Your task to perform on an android device: turn off javascript in the chrome app Image 0: 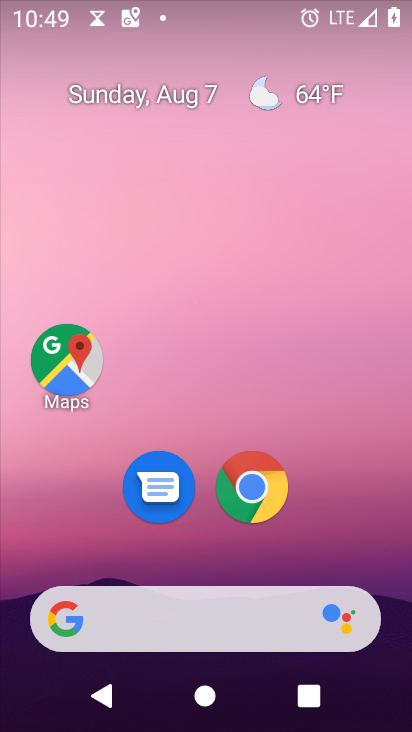
Step 0: click (255, 487)
Your task to perform on an android device: turn off javascript in the chrome app Image 1: 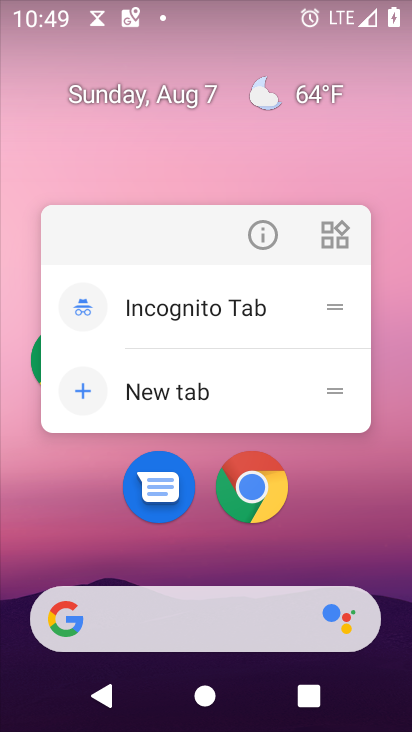
Step 1: click (246, 497)
Your task to perform on an android device: turn off javascript in the chrome app Image 2: 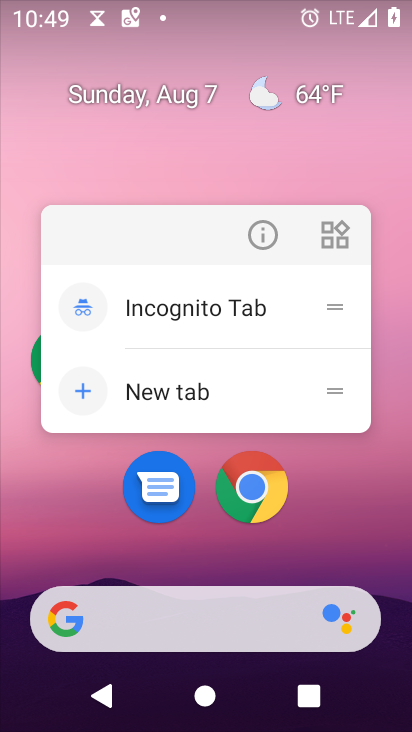
Step 2: click (259, 479)
Your task to perform on an android device: turn off javascript in the chrome app Image 3: 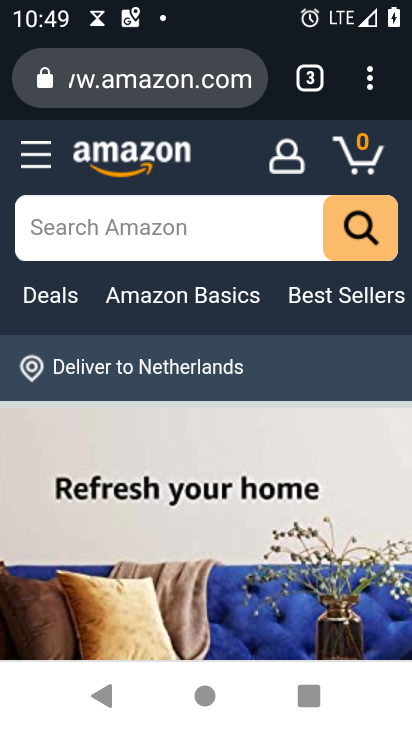
Step 3: click (372, 72)
Your task to perform on an android device: turn off javascript in the chrome app Image 4: 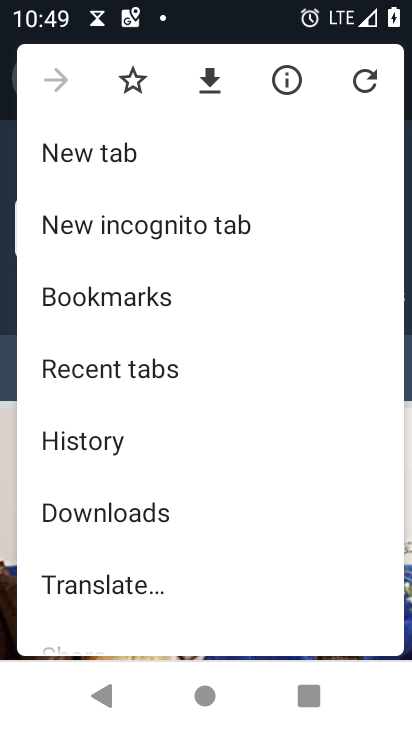
Step 4: drag from (256, 457) to (262, 148)
Your task to perform on an android device: turn off javascript in the chrome app Image 5: 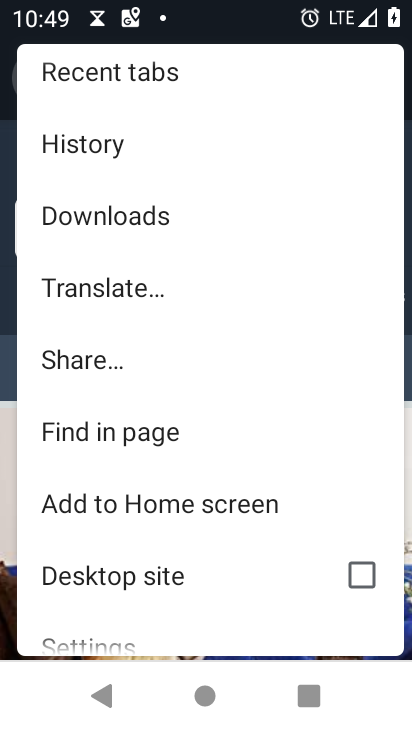
Step 5: click (88, 641)
Your task to perform on an android device: turn off javascript in the chrome app Image 6: 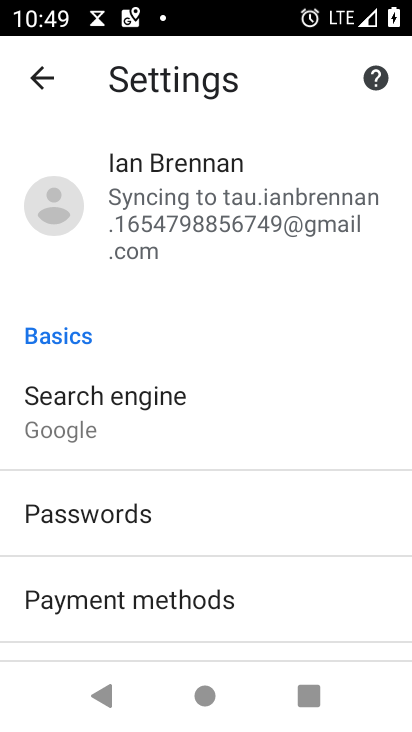
Step 6: drag from (258, 592) to (272, 221)
Your task to perform on an android device: turn off javascript in the chrome app Image 7: 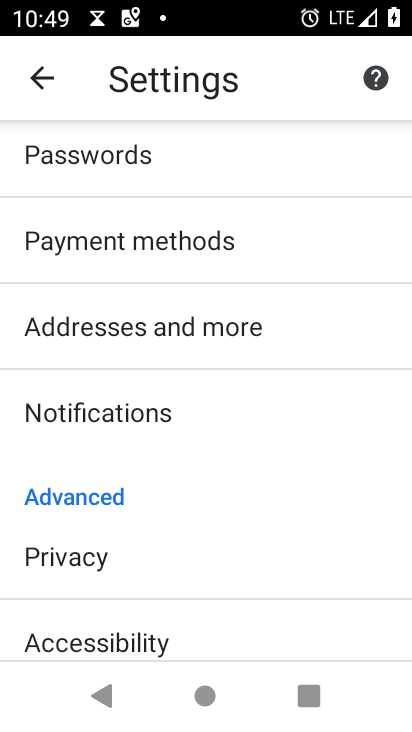
Step 7: drag from (285, 468) to (322, 237)
Your task to perform on an android device: turn off javascript in the chrome app Image 8: 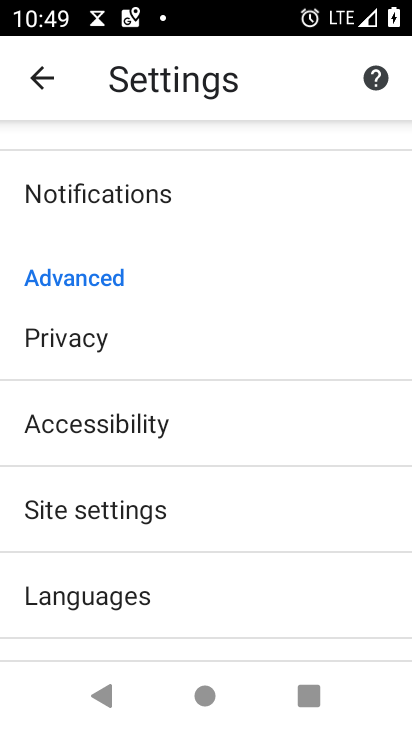
Step 8: click (113, 514)
Your task to perform on an android device: turn off javascript in the chrome app Image 9: 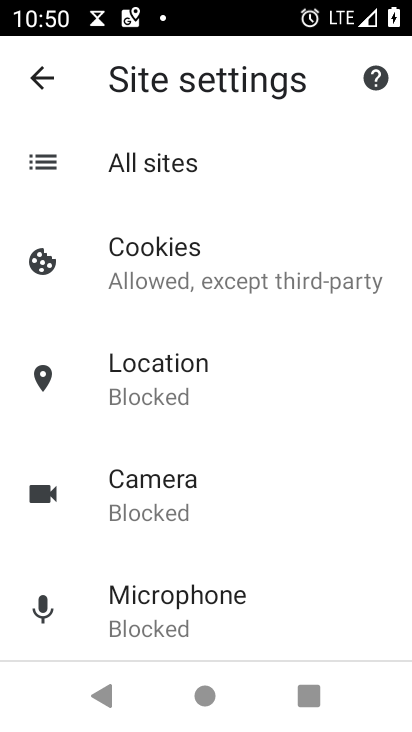
Step 9: drag from (286, 586) to (301, 223)
Your task to perform on an android device: turn off javascript in the chrome app Image 10: 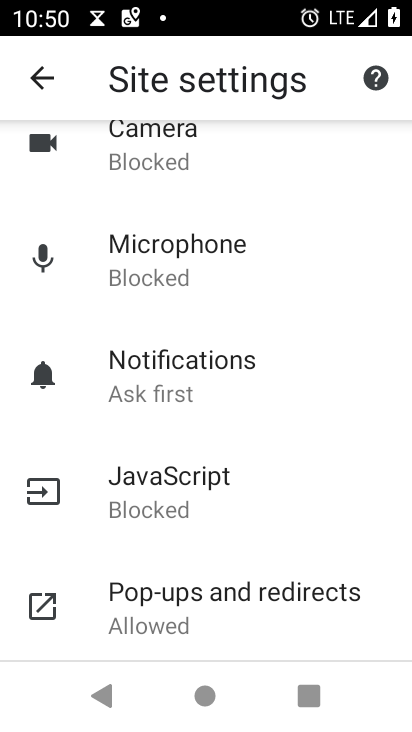
Step 10: click (159, 489)
Your task to perform on an android device: turn off javascript in the chrome app Image 11: 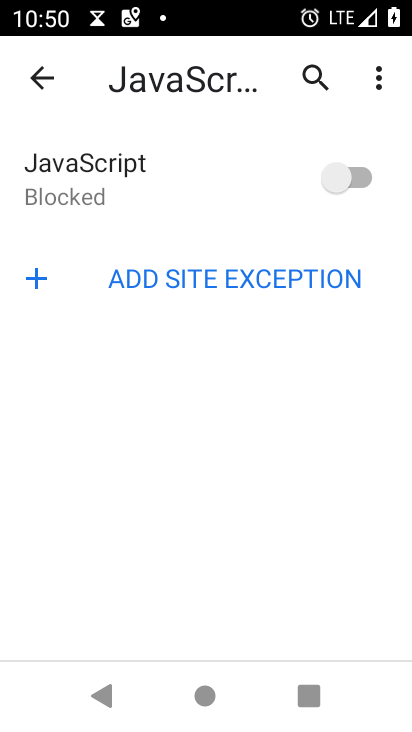
Step 11: task complete